Your task to perform on an android device: Toggle the flashlight Image 0: 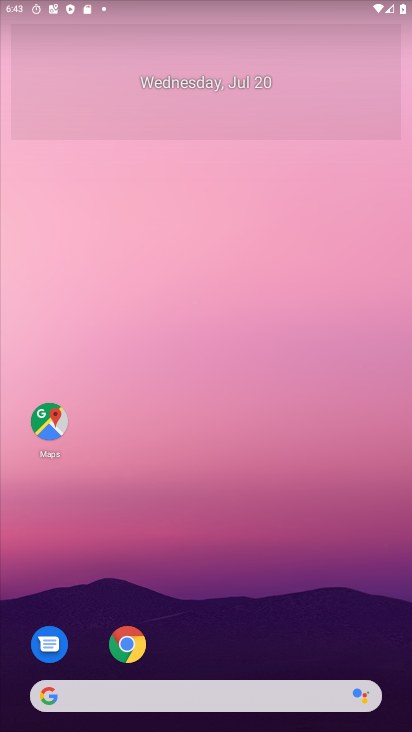
Step 0: press home button
Your task to perform on an android device: Toggle the flashlight Image 1: 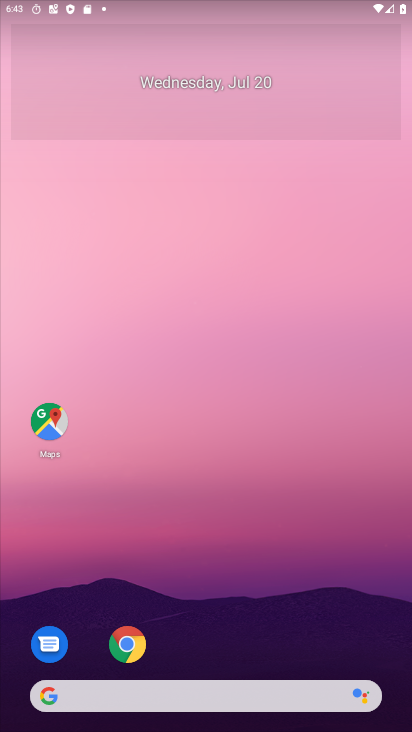
Step 1: task complete